Your task to perform on an android device: turn off data saver in the chrome app Image 0: 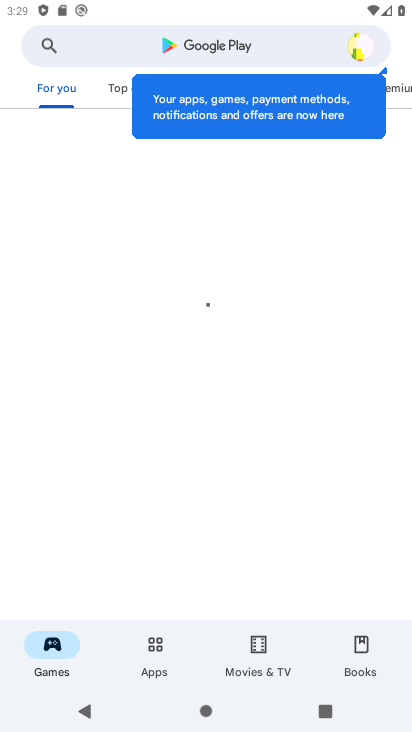
Step 0: press home button
Your task to perform on an android device: turn off data saver in the chrome app Image 1: 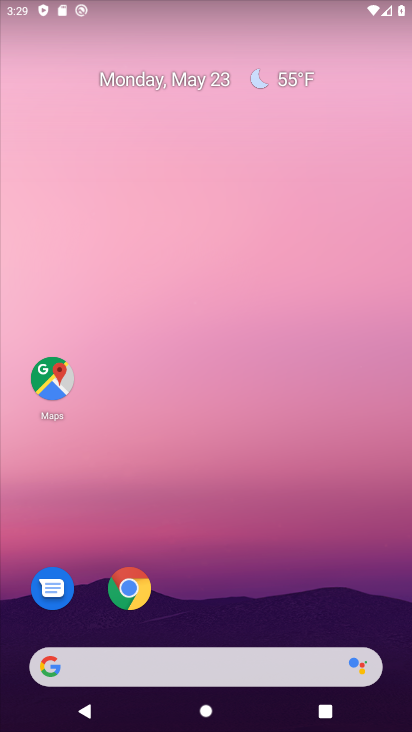
Step 1: click (124, 592)
Your task to perform on an android device: turn off data saver in the chrome app Image 2: 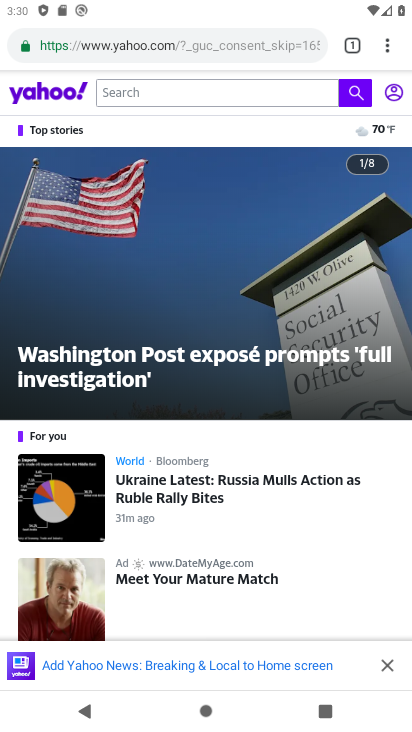
Step 2: click (381, 45)
Your task to perform on an android device: turn off data saver in the chrome app Image 3: 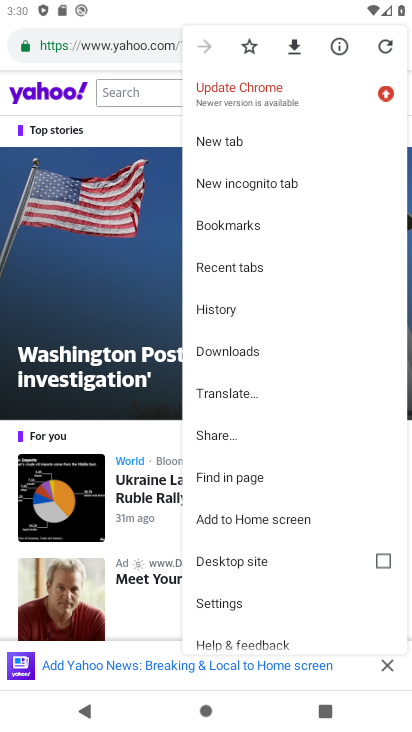
Step 3: click (236, 606)
Your task to perform on an android device: turn off data saver in the chrome app Image 4: 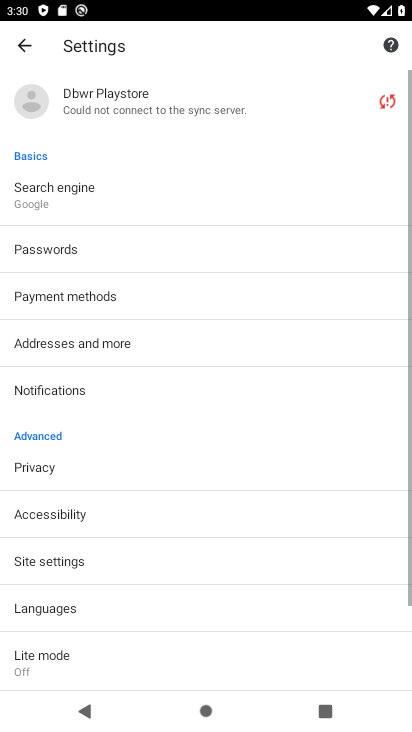
Step 4: drag from (248, 598) to (256, 251)
Your task to perform on an android device: turn off data saver in the chrome app Image 5: 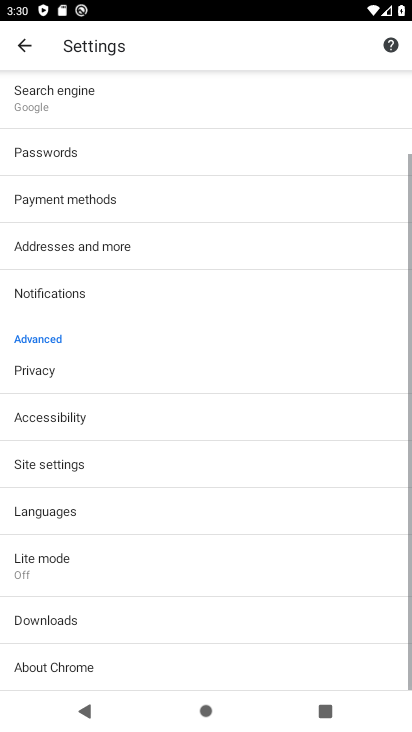
Step 5: click (97, 570)
Your task to perform on an android device: turn off data saver in the chrome app Image 6: 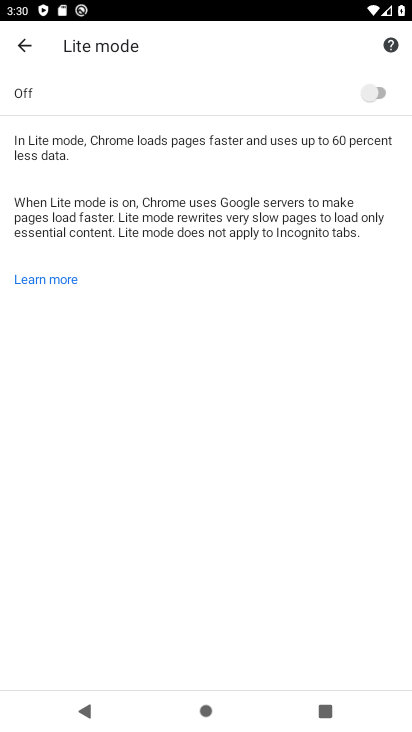
Step 6: task complete